Your task to perform on an android device: Open calendar and show me the fourth week of next month Image 0: 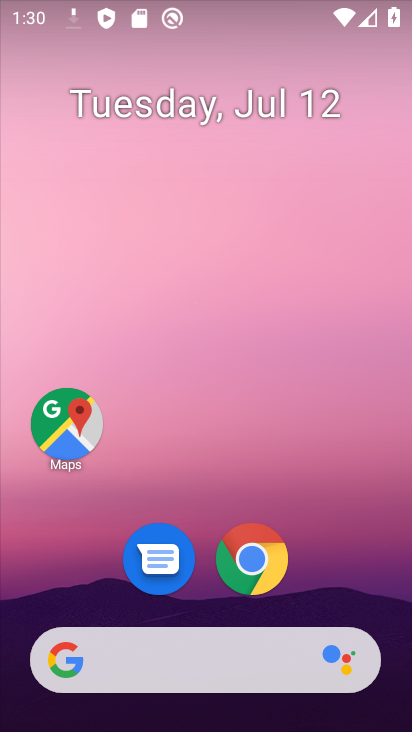
Step 0: drag from (363, 570) to (368, 11)
Your task to perform on an android device: Open calendar and show me the fourth week of next month Image 1: 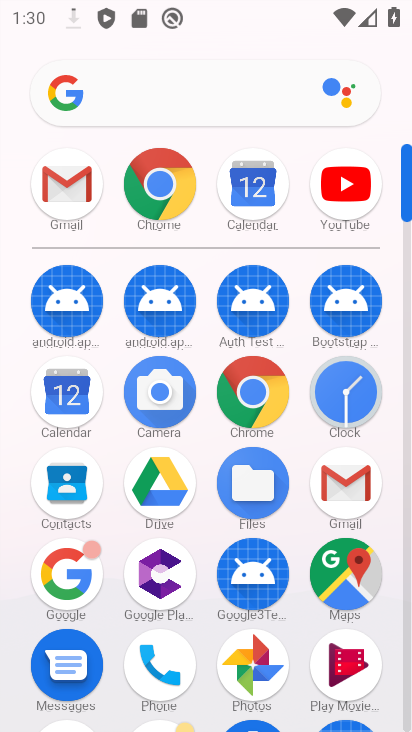
Step 1: click (268, 201)
Your task to perform on an android device: Open calendar and show me the fourth week of next month Image 2: 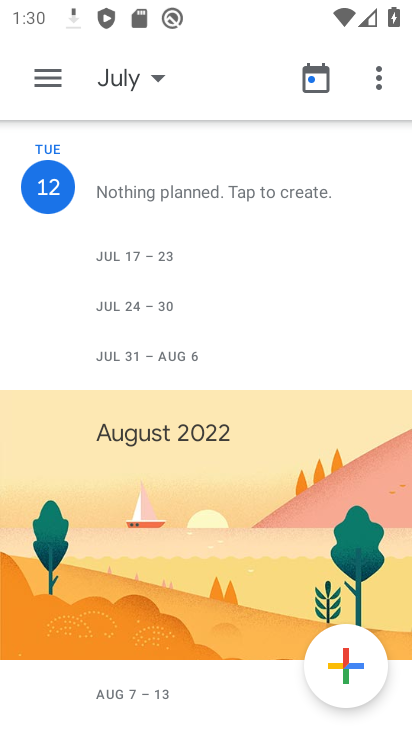
Step 2: click (164, 78)
Your task to perform on an android device: Open calendar and show me the fourth week of next month Image 3: 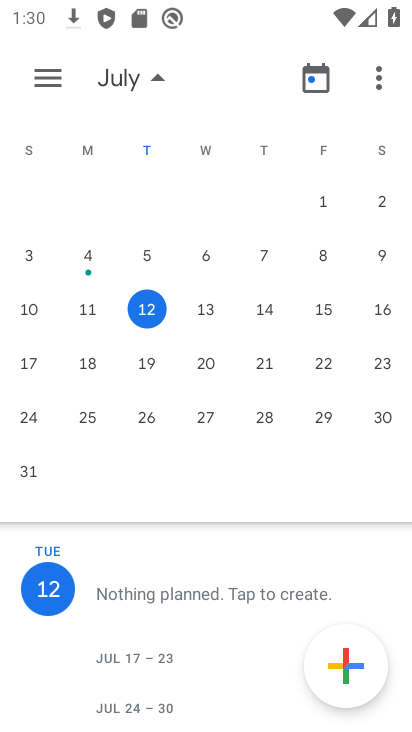
Step 3: drag from (390, 176) to (20, 175)
Your task to perform on an android device: Open calendar and show me the fourth week of next month Image 4: 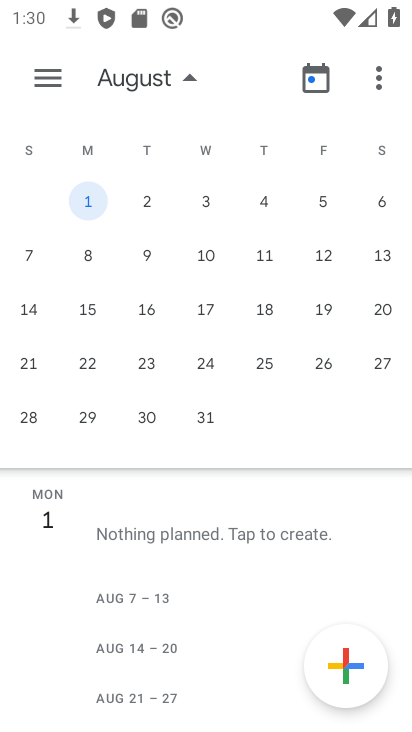
Step 4: click (87, 369)
Your task to perform on an android device: Open calendar and show me the fourth week of next month Image 5: 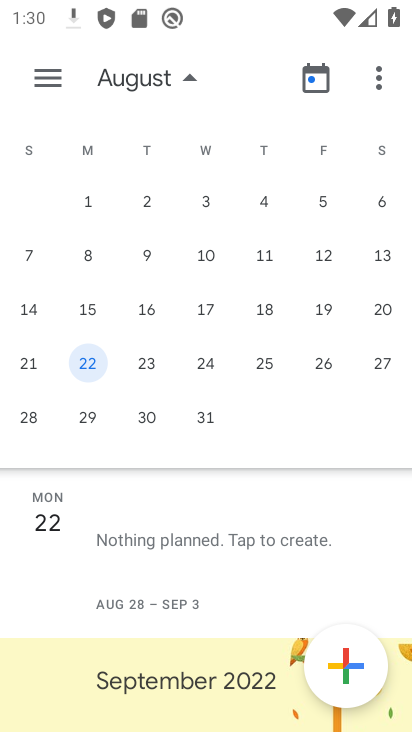
Step 5: task complete